Your task to perform on an android device: turn on sleep mode Image 0: 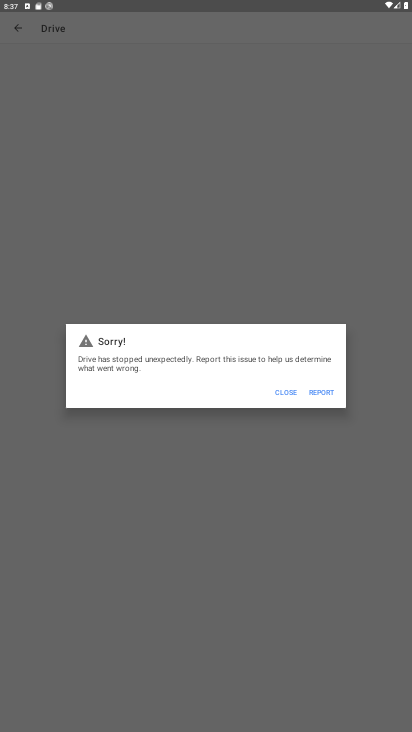
Step 0: task impossible